Your task to perform on an android device: open wifi settings Image 0: 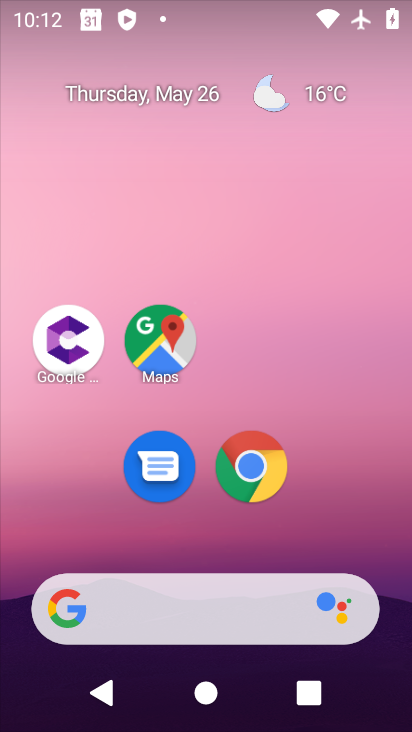
Step 0: drag from (357, 503) to (213, 27)
Your task to perform on an android device: open wifi settings Image 1: 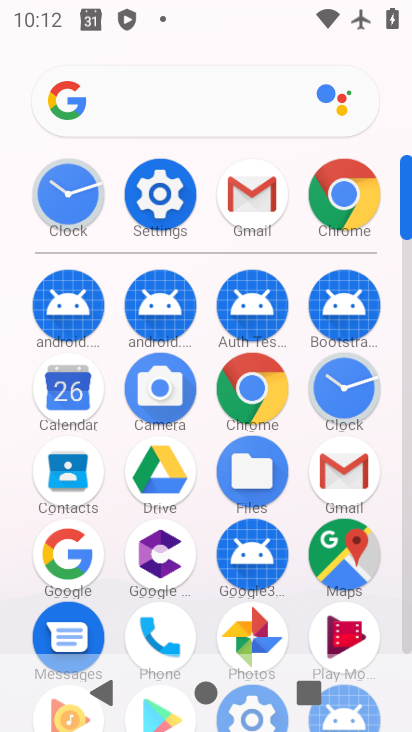
Step 1: click (163, 191)
Your task to perform on an android device: open wifi settings Image 2: 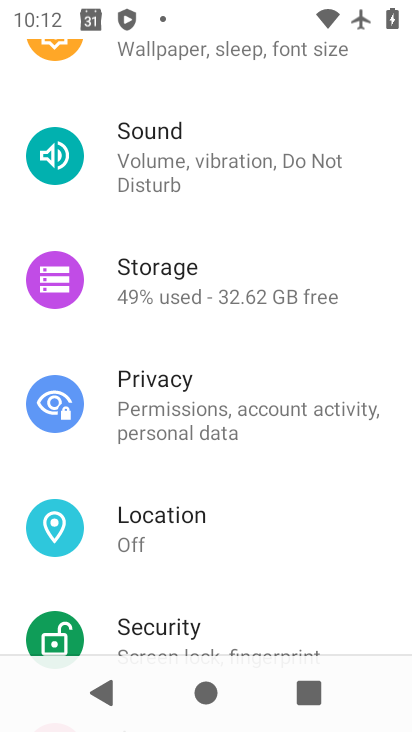
Step 2: drag from (195, 199) to (268, 529)
Your task to perform on an android device: open wifi settings Image 3: 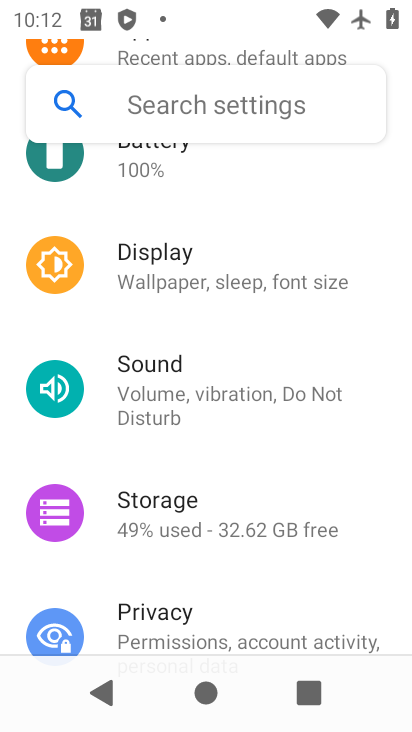
Step 3: drag from (206, 200) to (391, 714)
Your task to perform on an android device: open wifi settings Image 4: 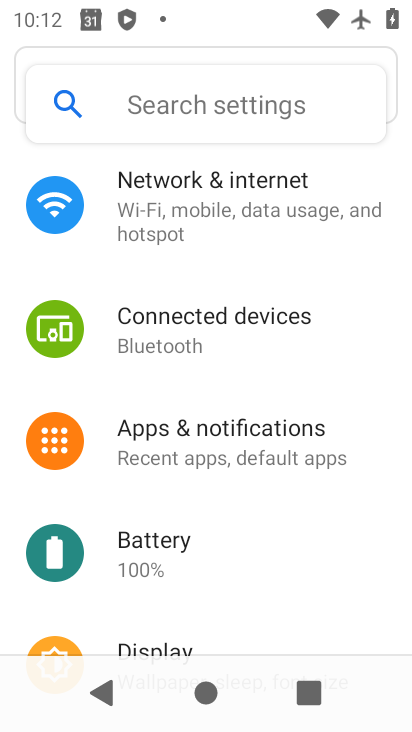
Step 4: click (194, 190)
Your task to perform on an android device: open wifi settings Image 5: 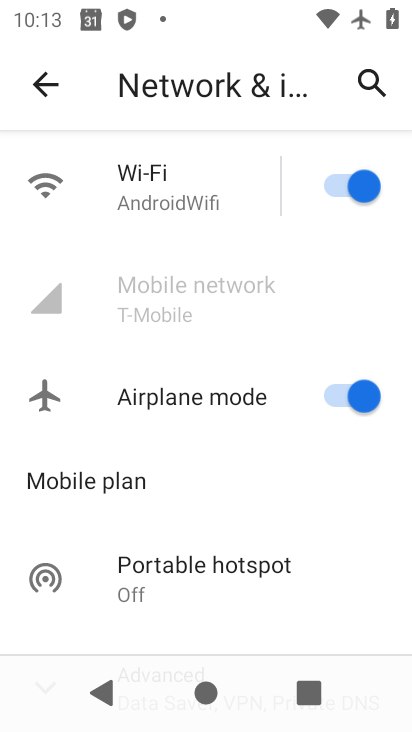
Step 5: click (155, 166)
Your task to perform on an android device: open wifi settings Image 6: 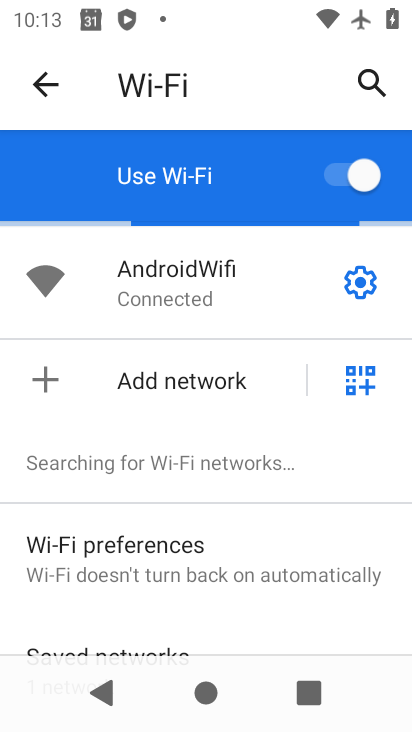
Step 6: task complete